Your task to perform on an android device: snooze an email in the gmail app Image 0: 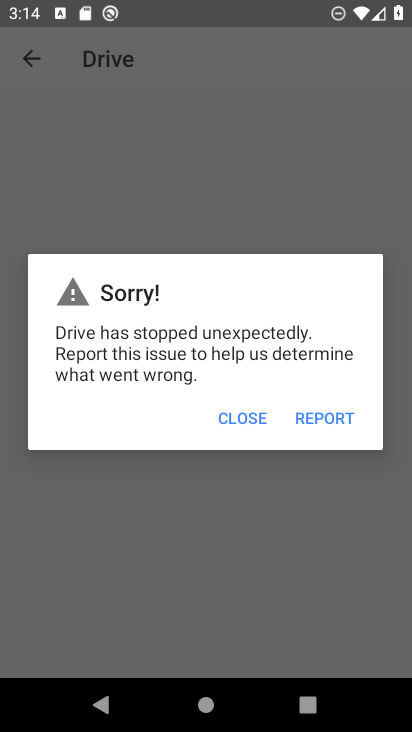
Step 0: press home button
Your task to perform on an android device: snooze an email in the gmail app Image 1: 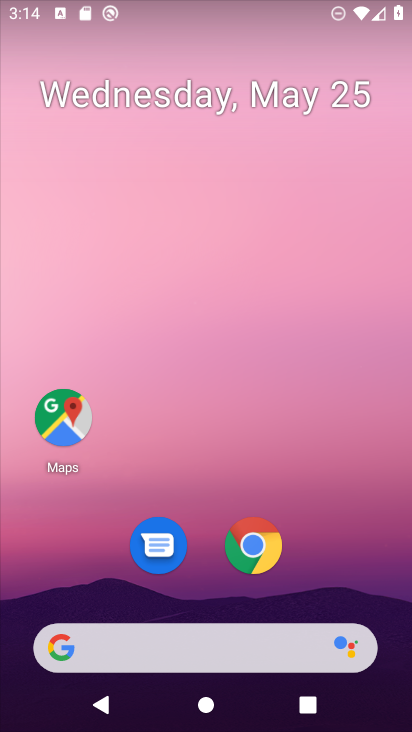
Step 1: drag from (351, 599) to (229, 5)
Your task to perform on an android device: snooze an email in the gmail app Image 2: 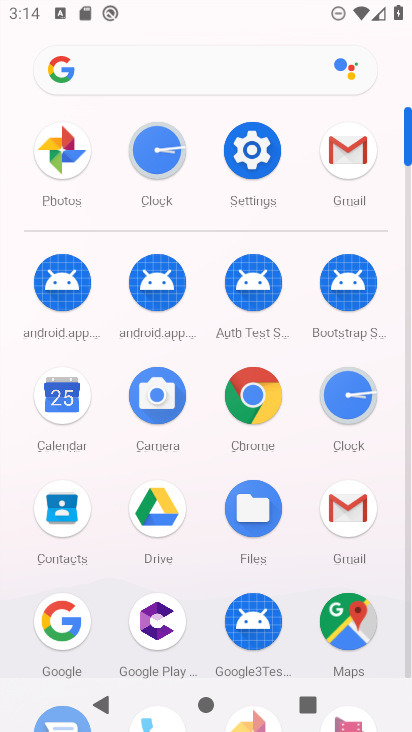
Step 2: click (339, 172)
Your task to perform on an android device: snooze an email in the gmail app Image 3: 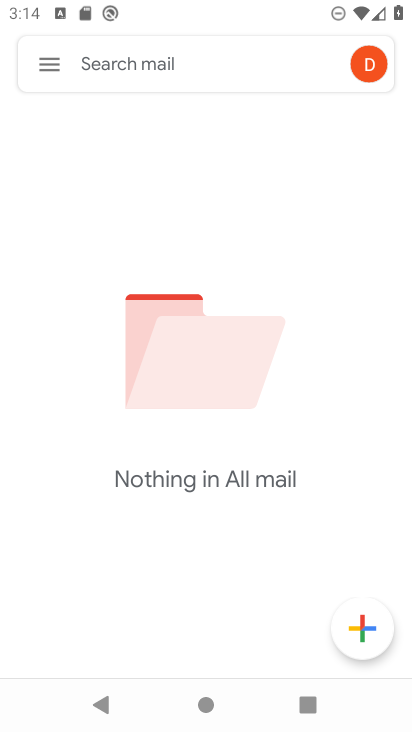
Step 3: click (38, 68)
Your task to perform on an android device: snooze an email in the gmail app Image 4: 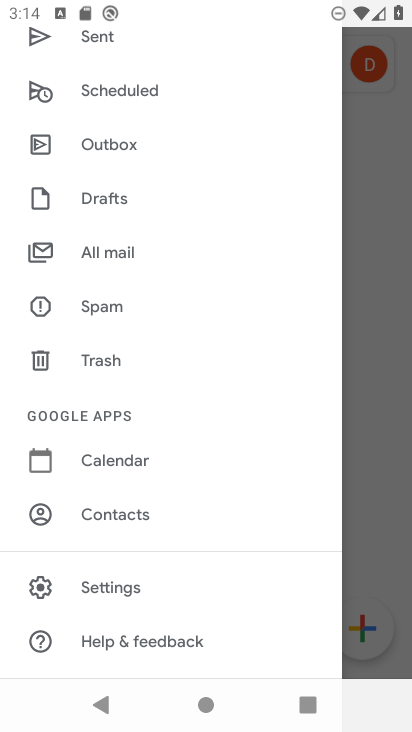
Step 4: drag from (123, 110) to (158, 210)
Your task to perform on an android device: snooze an email in the gmail app Image 5: 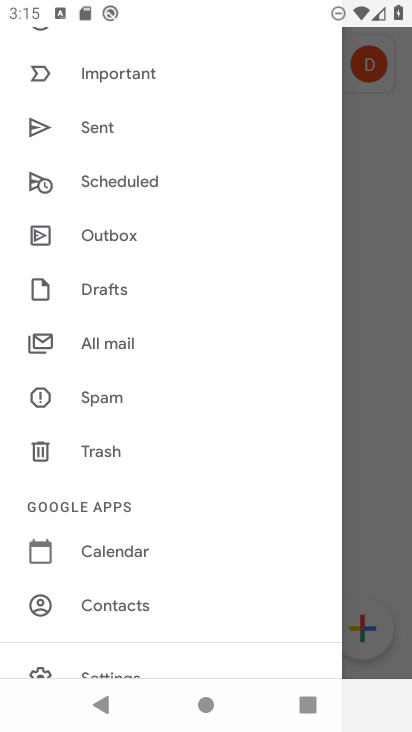
Step 5: drag from (196, 114) to (262, 282)
Your task to perform on an android device: snooze an email in the gmail app Image 6: 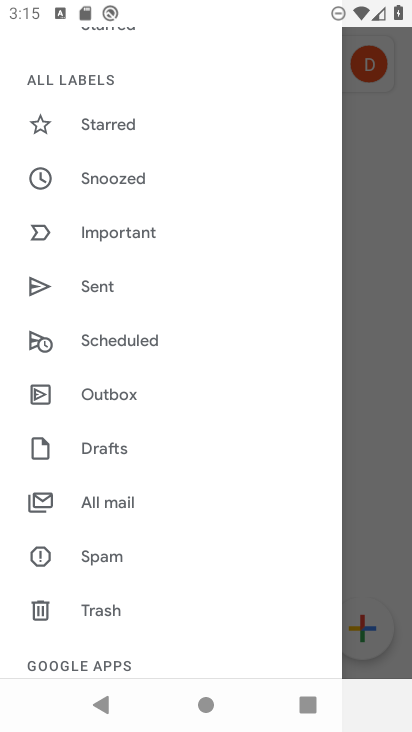
Step 6: click (195, 180)
Your task to perform on an android device: snooze an email in the gmail app Image 7: 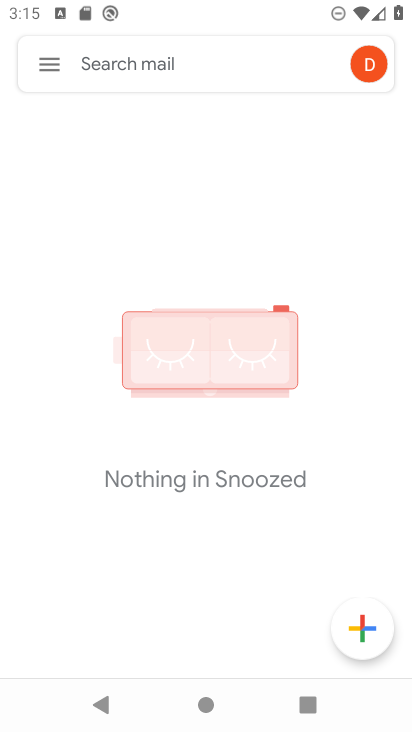
Step 7: task complete